Your task to perform on an android device: turn off notifications in google photos Image 0: 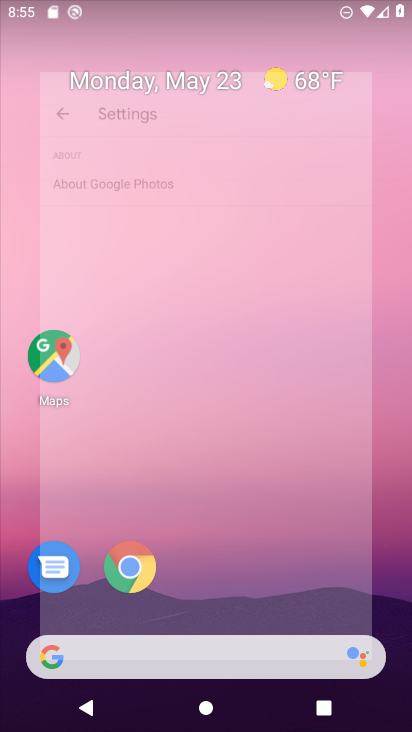
Step 0: drag from (184, 595) to (232, 147)
Your task to perform on an android device: turn off notifications in google photos Image 1: 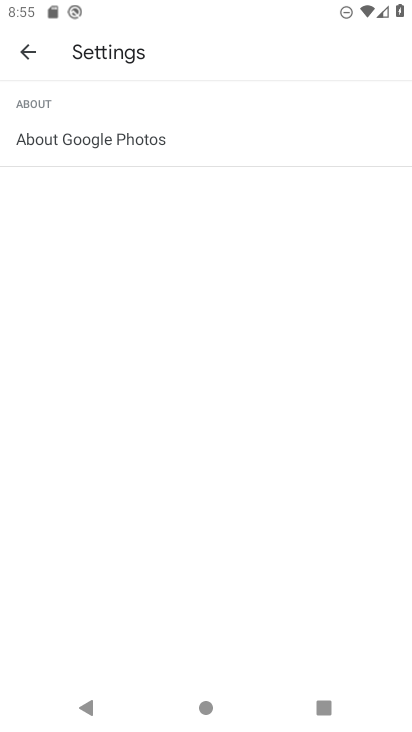
Step 1: press home button
Your task to perform on an android device: turn off notifications in google photos Image 2: 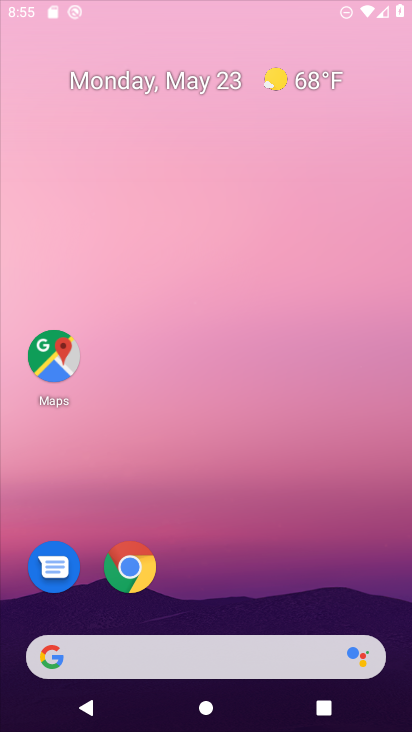
Step 2: drag from (185, 610) to (239, 138)
Your task to perform on an android device: turn off notifications in google photos Image 3: 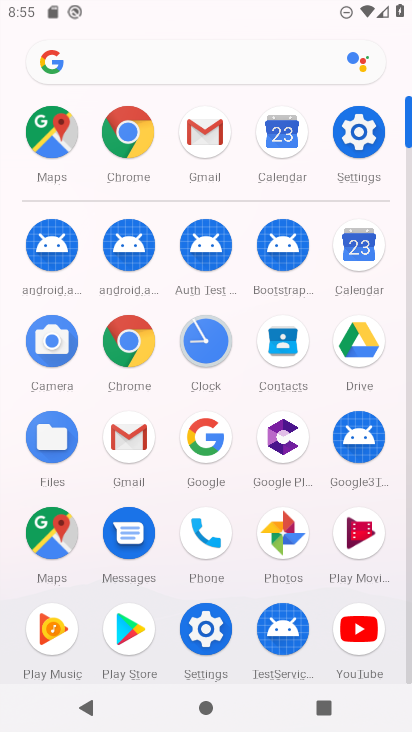
Step 3: click (271, 543)
Your task to perform on an android device: turn off notifications in google photos Image 4: 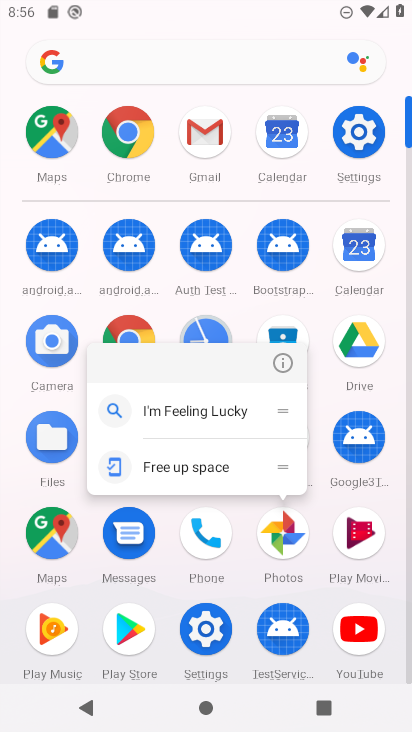
Step 4: click (277, 357)
Your task to perform on an android device: turn off notifications in google photos Image 5: 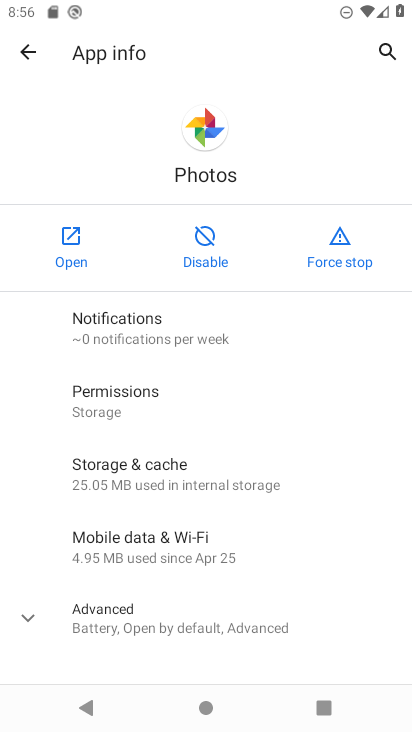
Step 5: click (80, 227)
Your task to perform on an android device: turn off notifications in google photos Image 6: 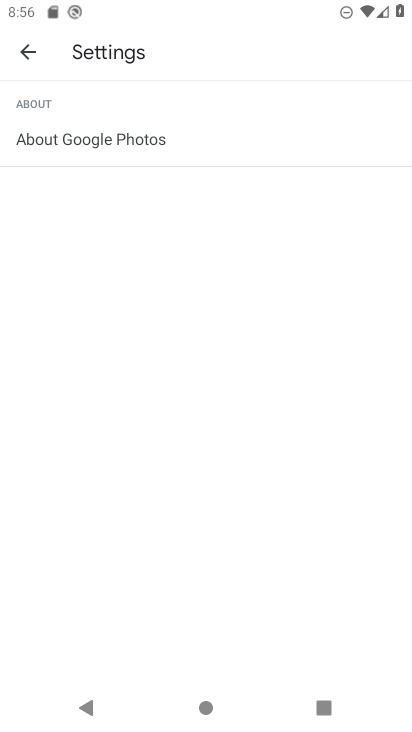
Step 6: drag from (208, 549) to (299, 142)
Your task to perform on an android device: turn off notifications in google photos Image 7: 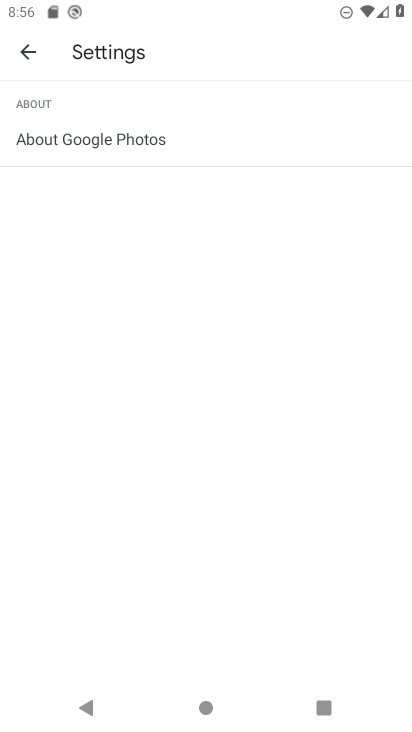
Step 7: drag from (225, 572) to (262, 184)
Your task to perform on an android device: turn off notifications in google photos Image 8: 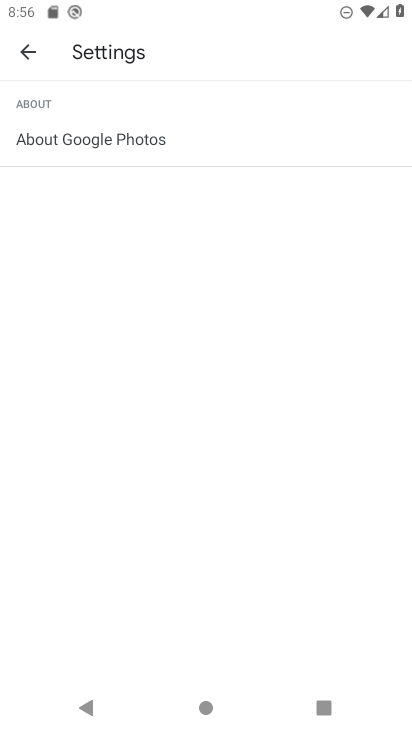
Step 8: click (15, 65)
Your task to perform on an android device: turn off notifications in google photos Image 9: 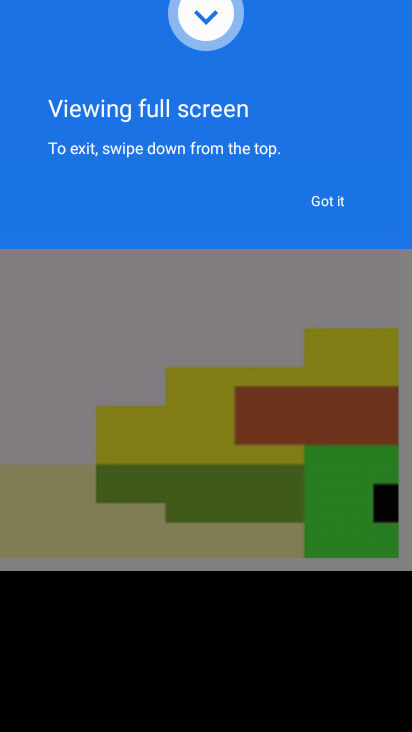
Step 9: click (158, 262)
Your task to perform on an android device: turn off notifications in google photos Image 10: 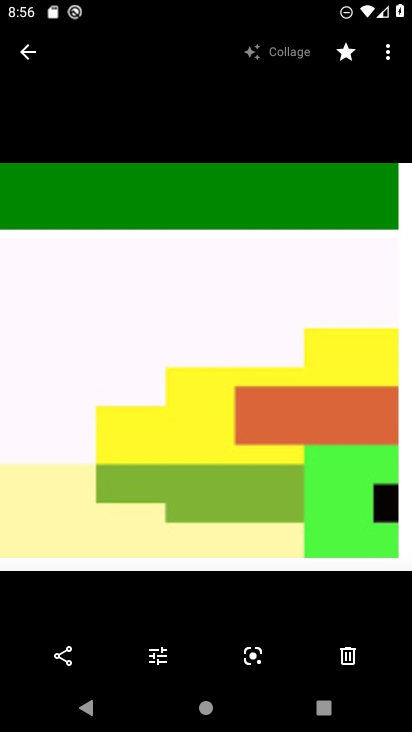
Step 10: click (37, 44)
Your task to perform on an android device: turn off notifications in google photos Image 11: 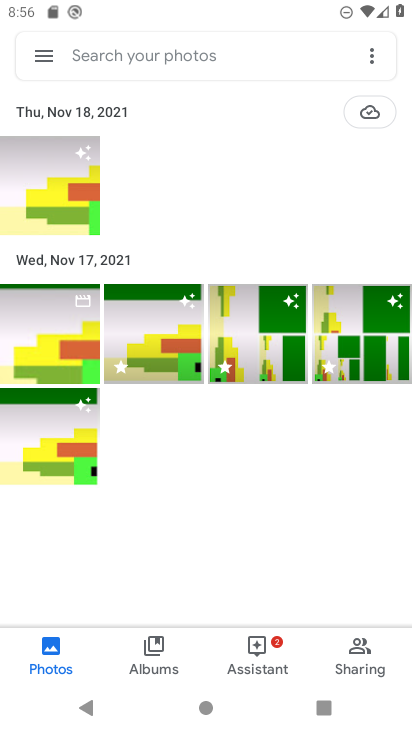
Step 11: click (48, 55)
Your task to perform on an android device: turn off notifications in google photos Image 12: 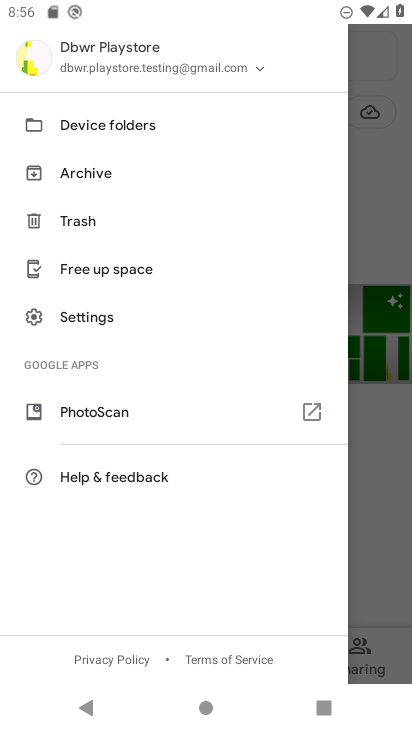
Step 12: click (85, 308)
Your task to perform on an android device: turn off notifications in google photos Image 13: 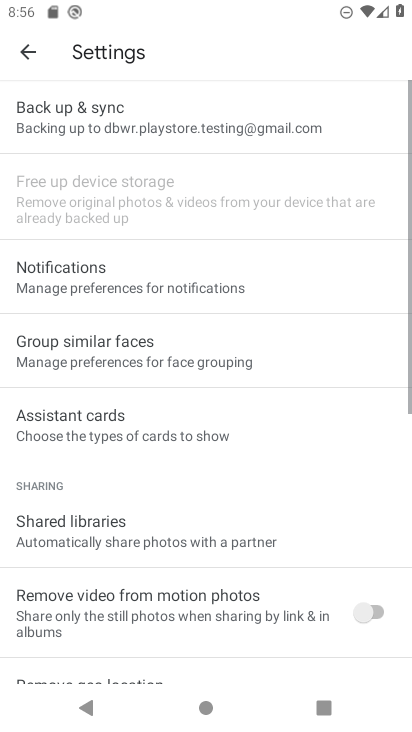
Step 13: drag from (224, 447) to (337, 0)
Your task to perform on an android device: turn off notifications in google photos Image 14: 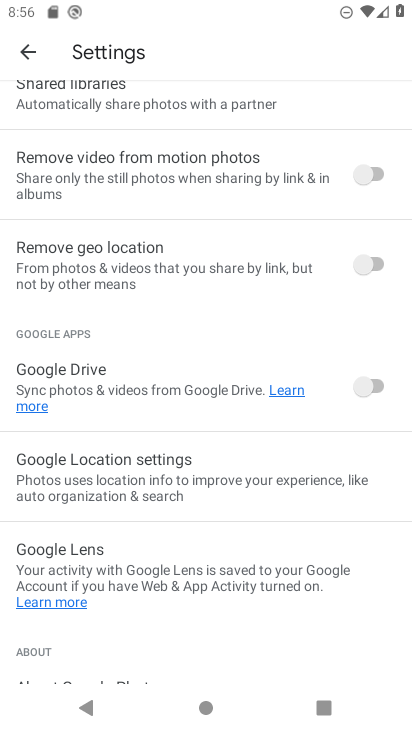
Step 14: drag from (199, 174) to (223, 516)
Your task to perform on an android device: turn off notifications in google photos Image 15: 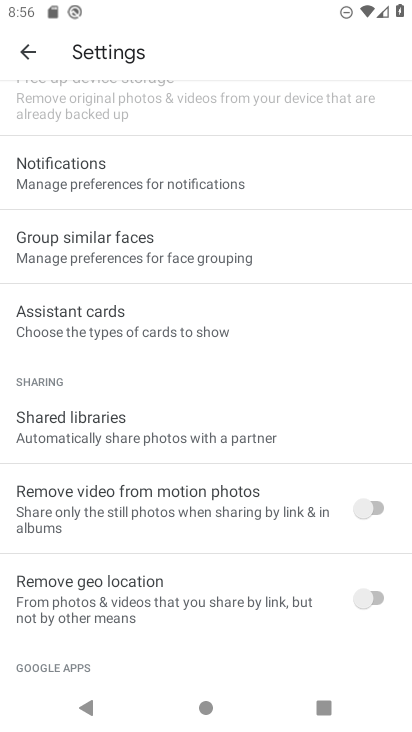
Step 15: click (131, 157)
Your task to perform on an android device: turn off notifications in google photos Image 16: 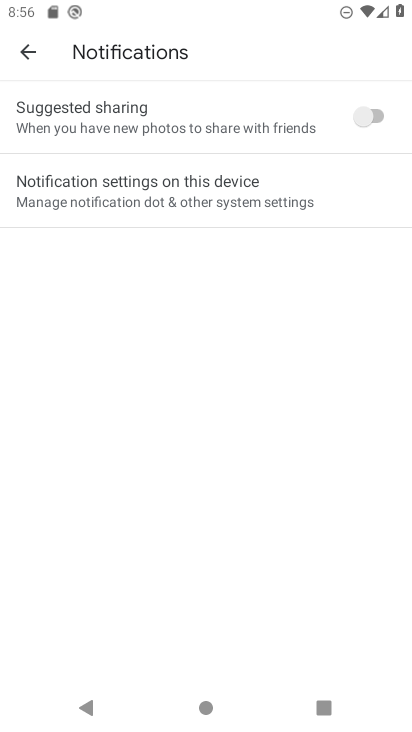
Step 16: click (242, 193)
Your task to perform on an android device: turn off notifications in google photos Image 17: 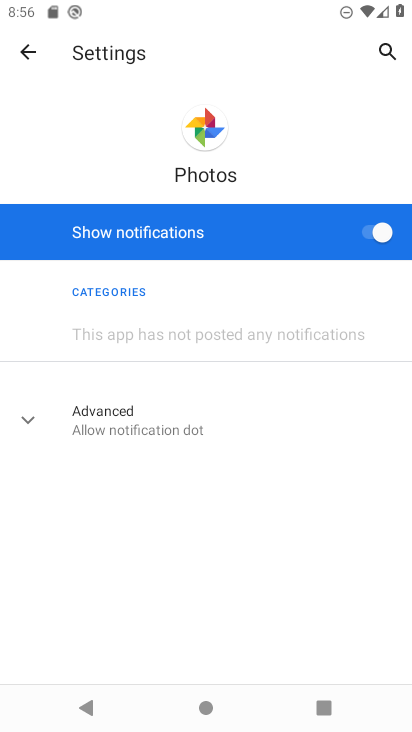
Step 17: click (362, 234)
Your task to perform on an android device: turn off notifications in google photos Image 18: 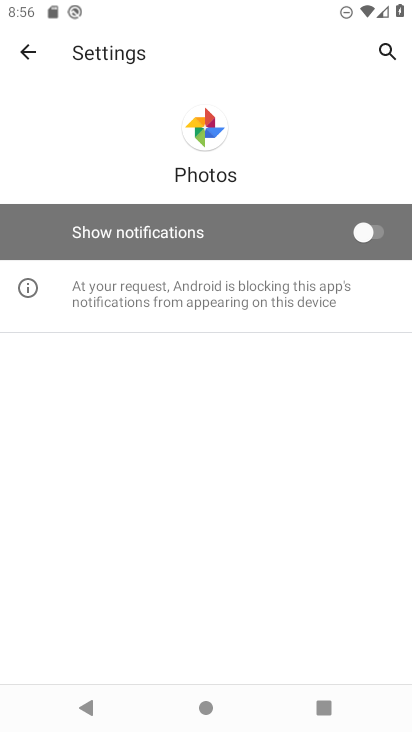
Step 18: task complete